Your task to perform on an android device: Go to internet settings Image 0: 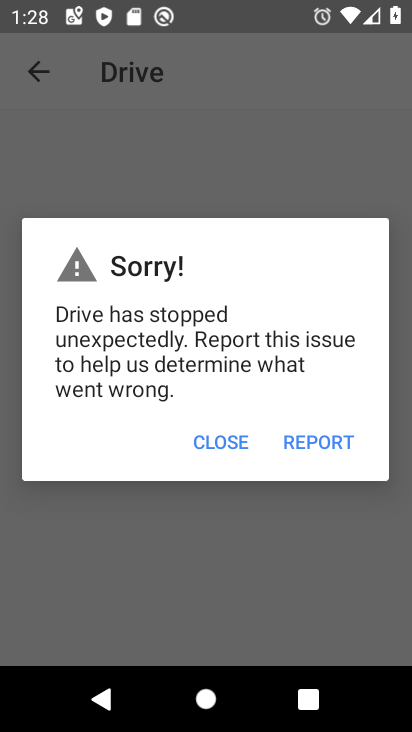
Step 0: press home button
Your task to perform on an android device: Go to internet settings Image 1: 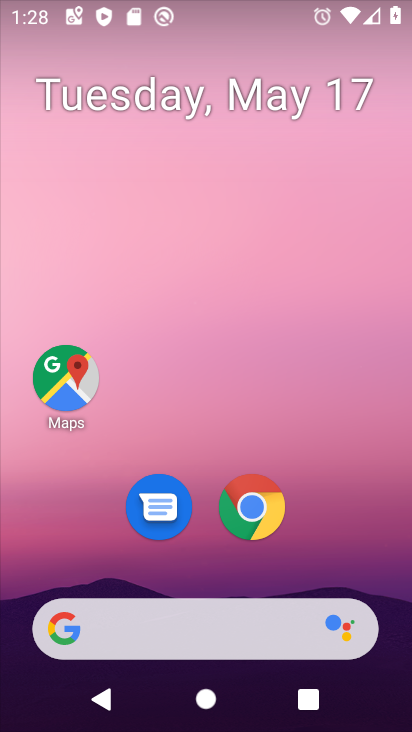
Step 1: drag from (267, 583) to (310, 290)
Your task to perform on an android device: Go to internet settings Image 2: 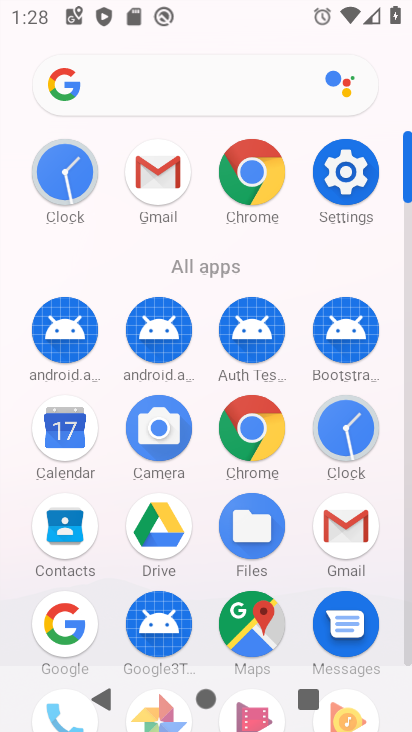
Step 2: click (349, 172)
Your task to perform on an android device: Go to internet settings Image 3: 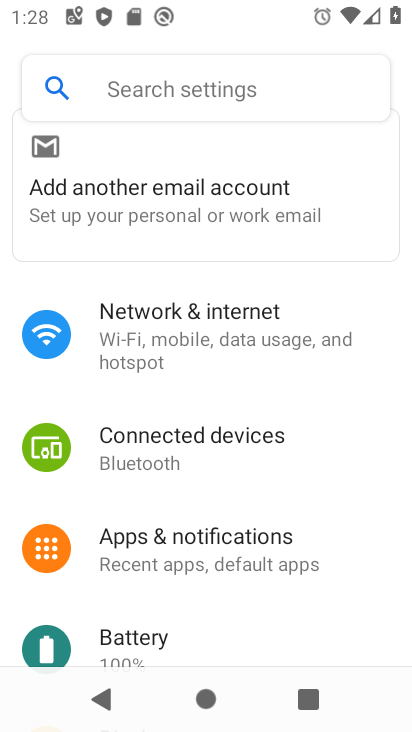
Step 3: click (221, 313)
Your task to perform on an android device: Go to internet settings Image 4: 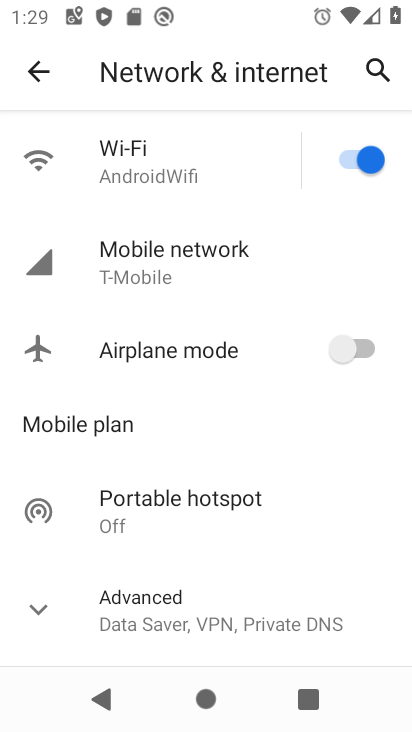
Step 4: task complete